Your task to perform on an android device: open a bookmark in the chrome app Image 0: 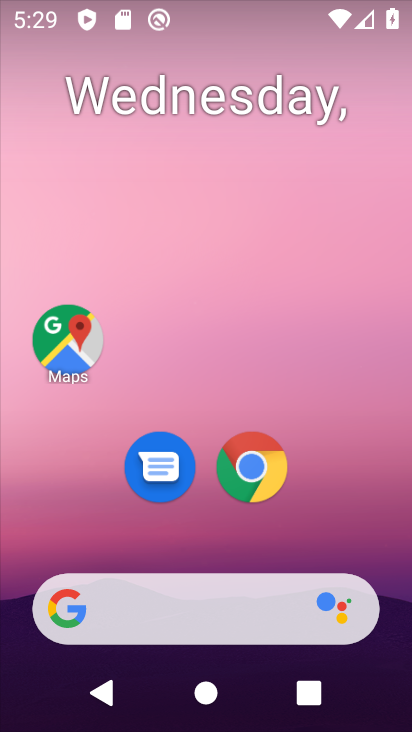
Step 0: click (249, 476)
Your task to perform on an android device: open a bookmark in the chrome app Image 1: 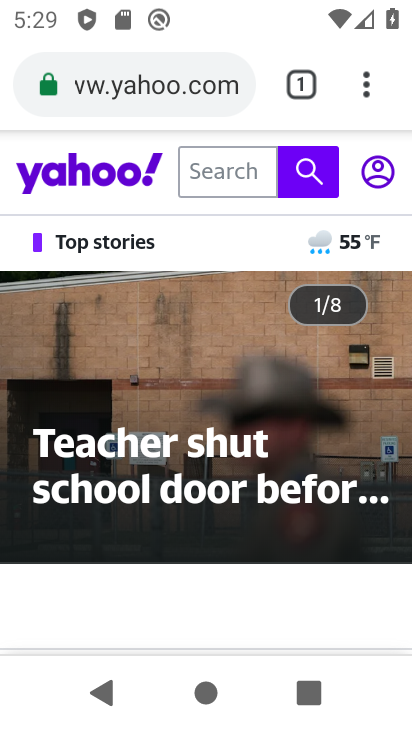
Step 1: task complete